Your task to perform on an android device: change the clock style Image 0: 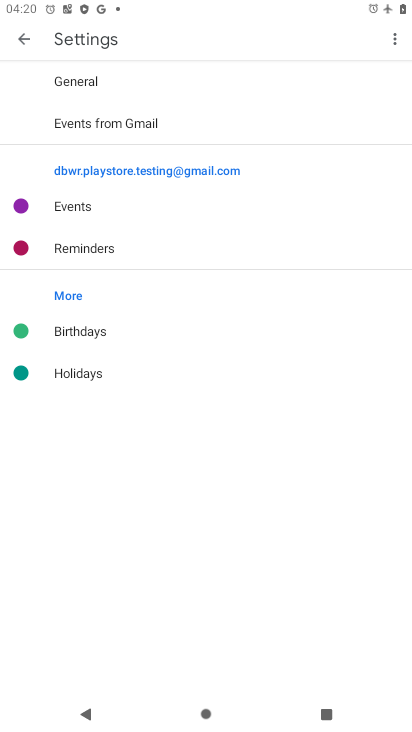
Step 0: press home button
Your task to perform on an android device: change the clock style Image 1: 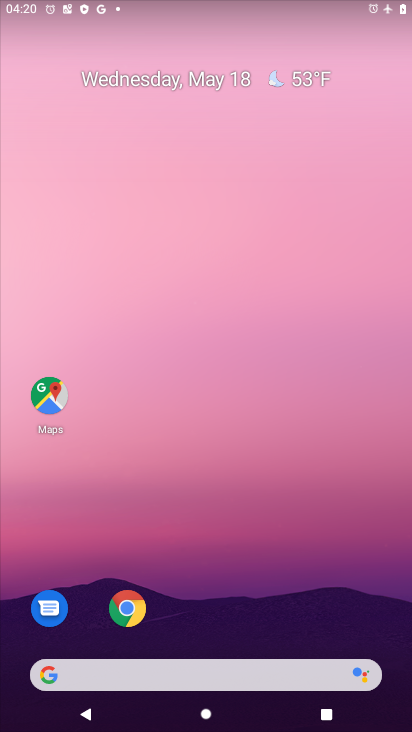
Step 1: drag from (213, 607) to (238, 59)
Your task to perform on an android device: change the clock style Image 2: 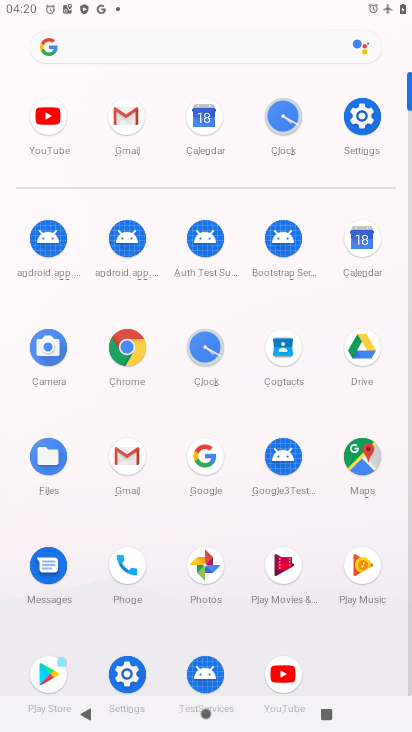
Step 2: click (279, 123)
Your task to perform on an android device: change the clock style Image 3: 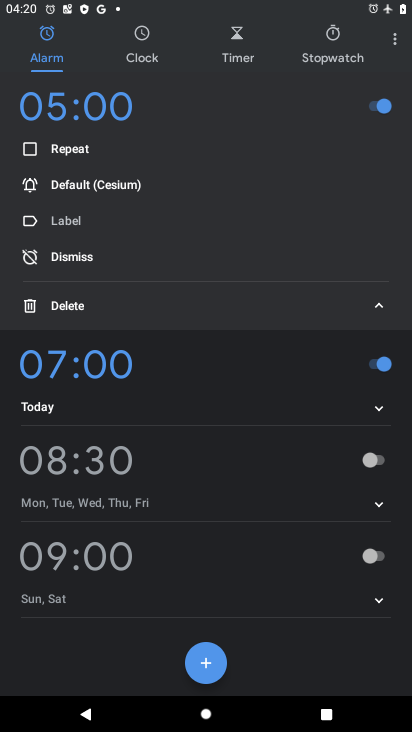
Step 3: click (393, 40)
Your task to perform on an android device: change the clock style Image 4: 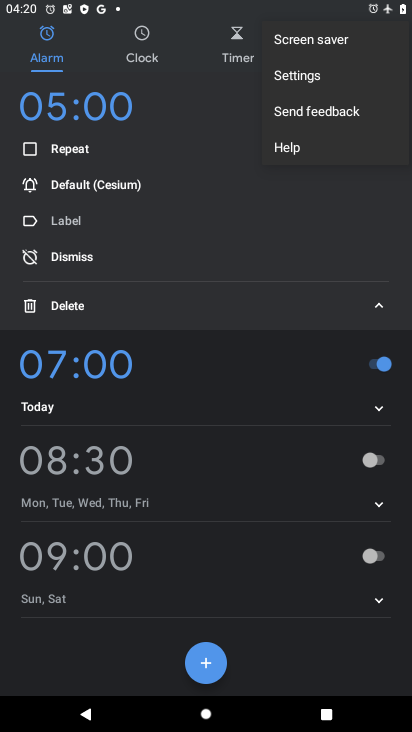
Step 4: click (353, 74)
Your task to perform on an android device: change the clock style Image 5: 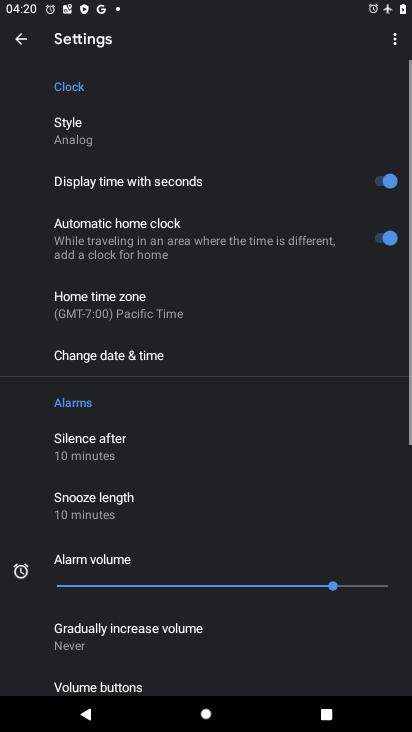
Step 5: click (79, 131)
Your task to perform on an android device: change the clock style Image 6: 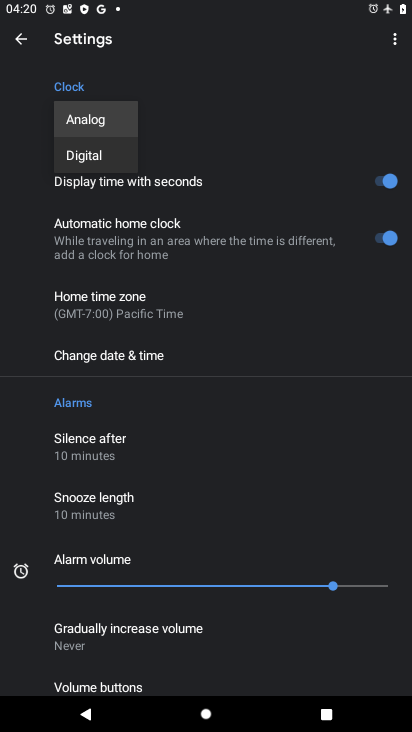
Step 6: click (96, 151)
Your task to perform on an android device: change the clock style Image 7: 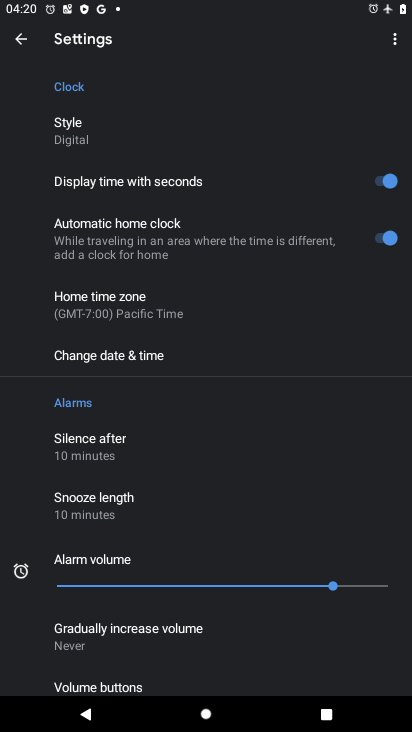
Step 7: task complete